Your task to perform on an android device: clear history in the chrome app Image 0: 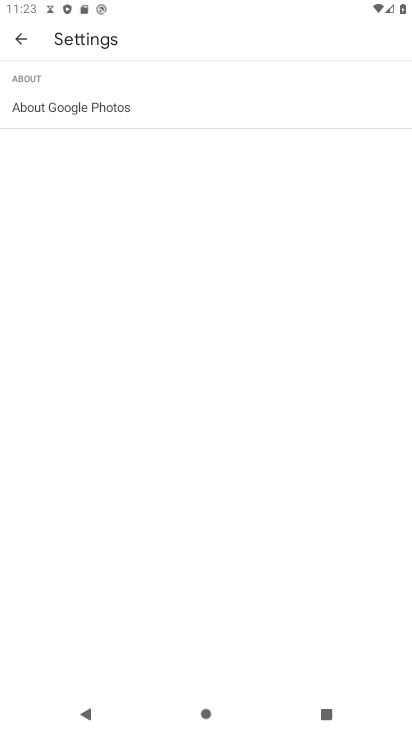
Step 0: press home button
Your task to perform on an android device: clear history in the chrome app Image 1: 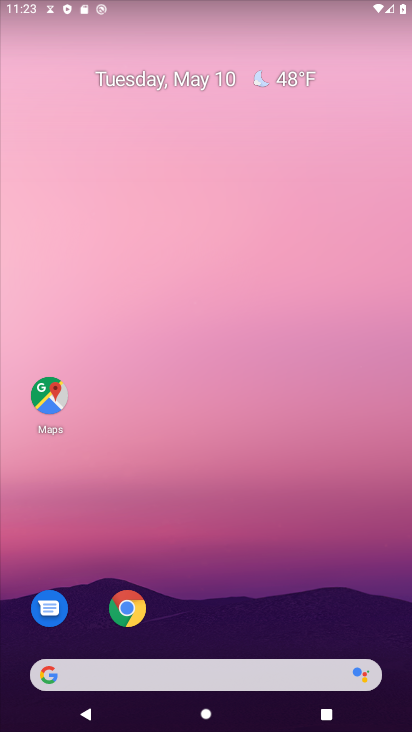
Step 1: click (133, 606)
Your task to perform on an android device: clear history in the chrome app Image 2: 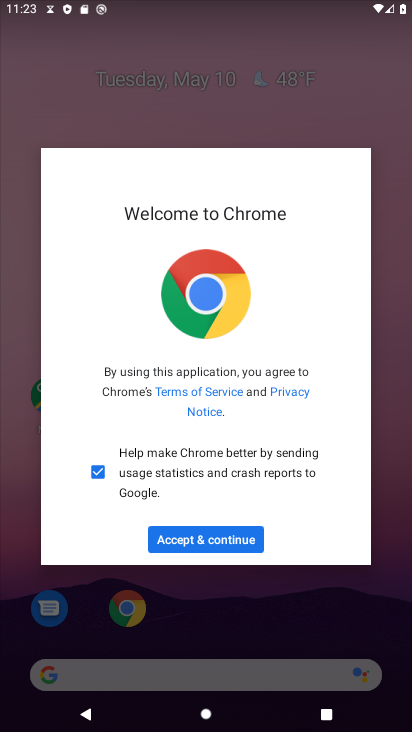
Step 2: click (185, 540)
Your task to perform on an android device: clear history in the chrome app Image 3: 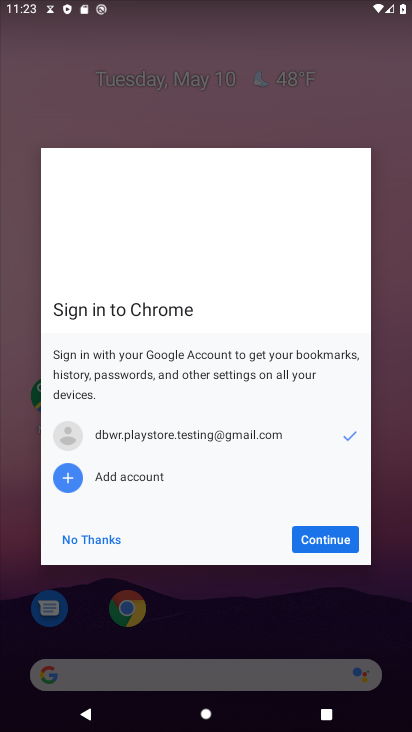
Step 3: click (314, 537)
Your task to perform on an android device: clear history in the chrome app Image 4: 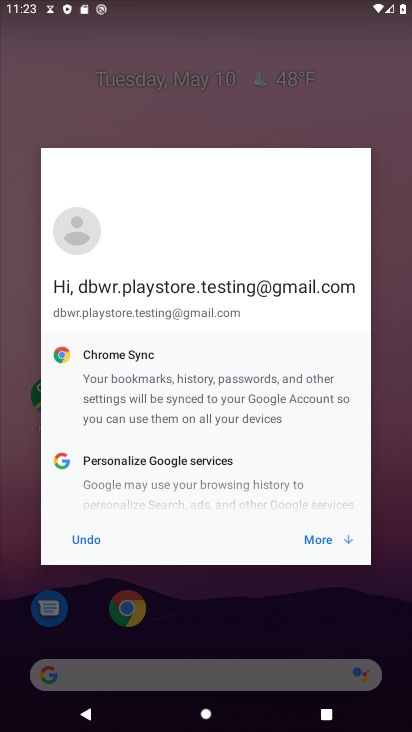
Step 4: click (314, 537)
Your task to perform on an android device: clear history in the chrome app Image 5: 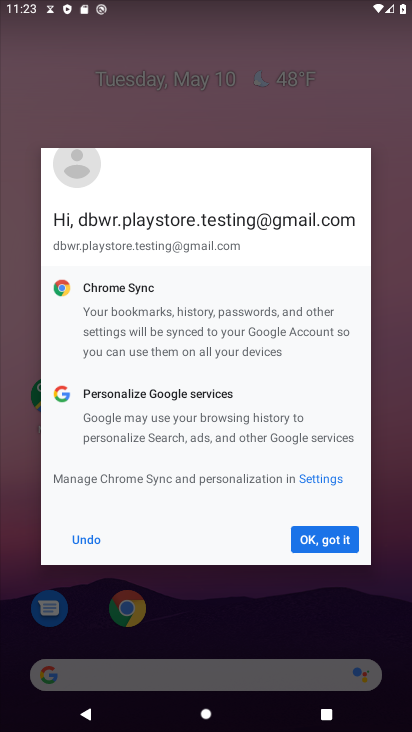
Step 5: click (314, 537)
Your task to perform on an android device: clear history in the chrome app Image 6: 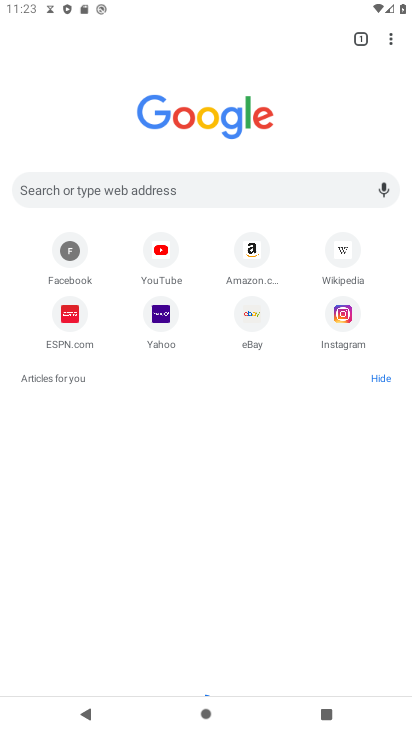
Step 6: click (382, 39)
Your task to perform on an android device: clear history in the chrome app Image 7: 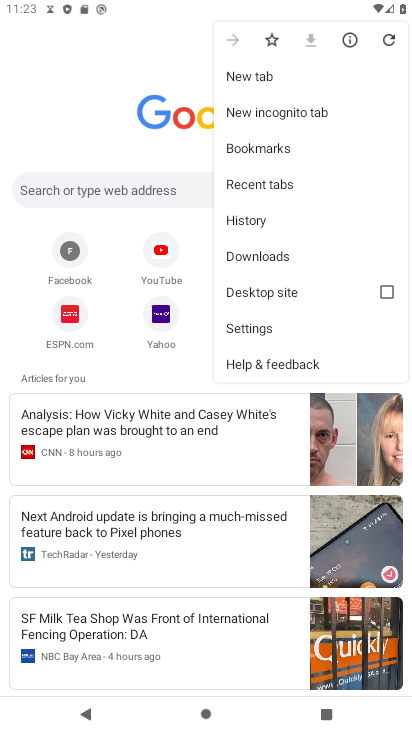
Step 7: click (244, 219)
Your task to perform on an android device: clear history in the chrome app Image 8: 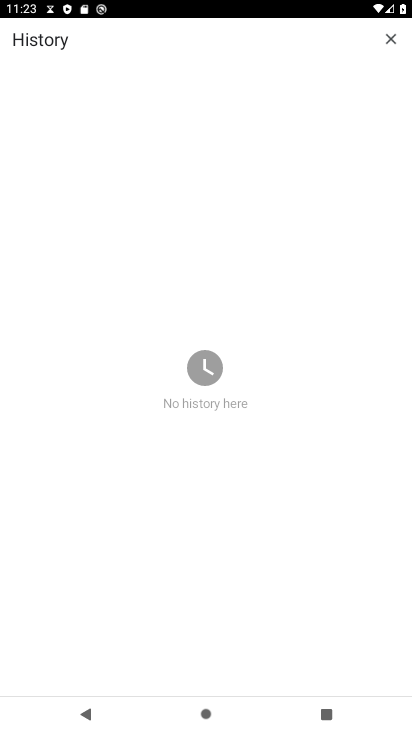
Step 8: task complete